Your task to perform on an android device: open chrome privacy settings Image 0: 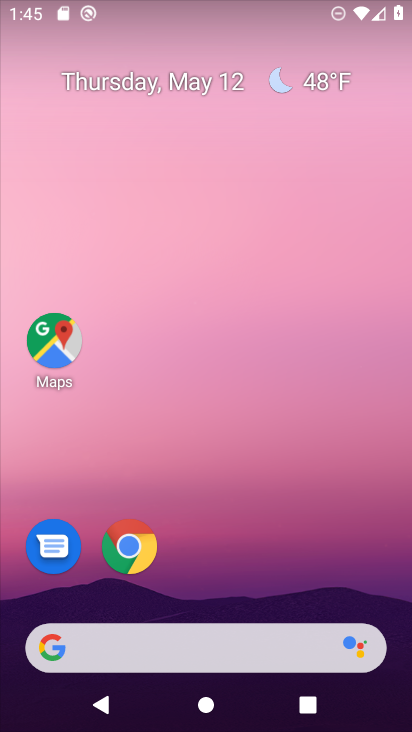
Step 0: drag from (281, 675) to (201, 213)
Your task to perform on an android device: open chrome privacy settings Image 1: 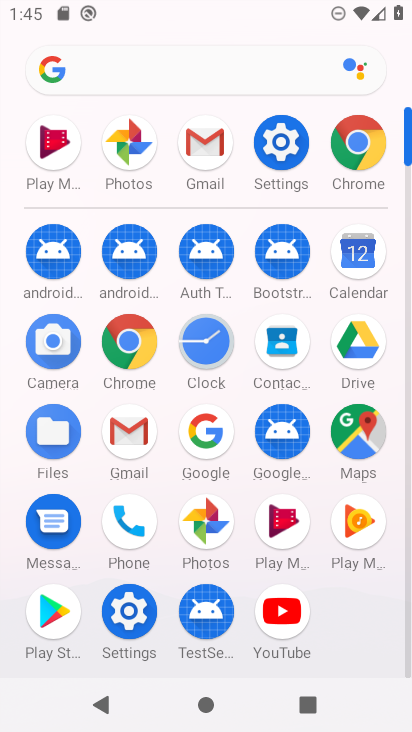
Step 1: click (348, 147)
Your task to perform on an android device: open chrome privacy settings Image 2: 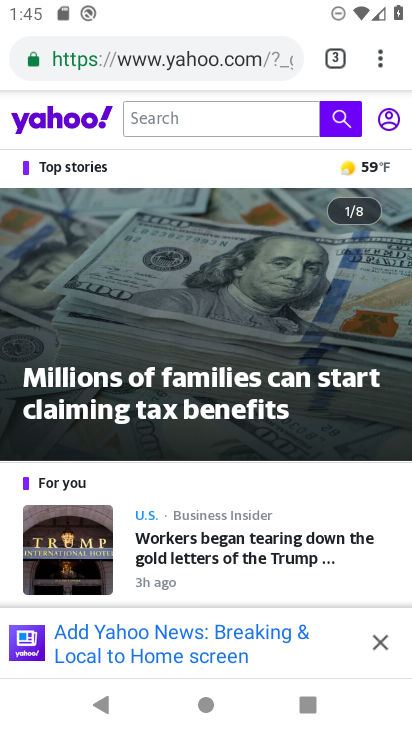
Step 2: click (384, 64)
Your task to perform on an android device: open chrome privacy settings Image 3: 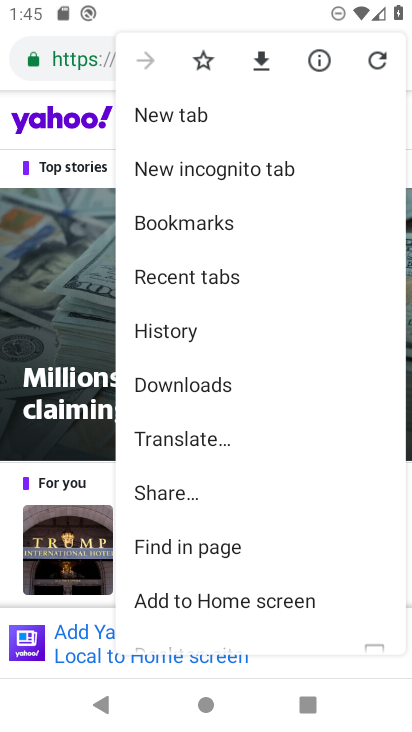
Step 3: drag from (208, 578) to (190, 478)
Your task to perform on an android device: open chrome privacy settings Image 4: 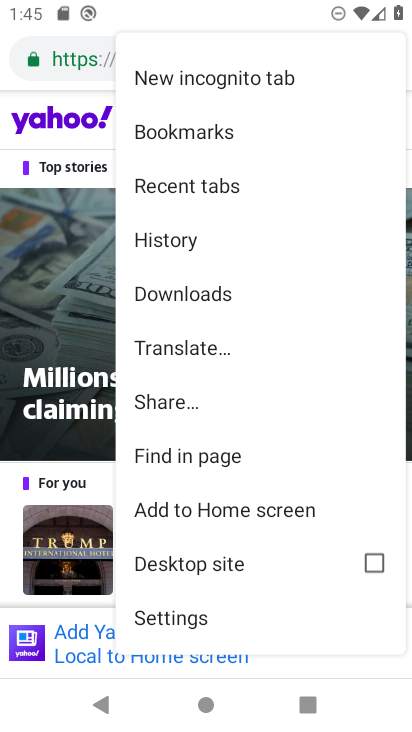
Step 4: click (178, 615)
Your task to perform on an android device: open chrome privacy settings Image 5: 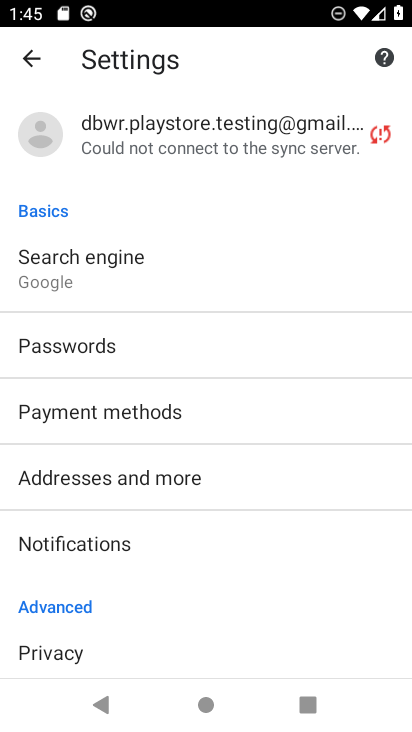
Step 5: click (87, 658)
Your task to perform on an android device: open chrome privacy settings Image 6: 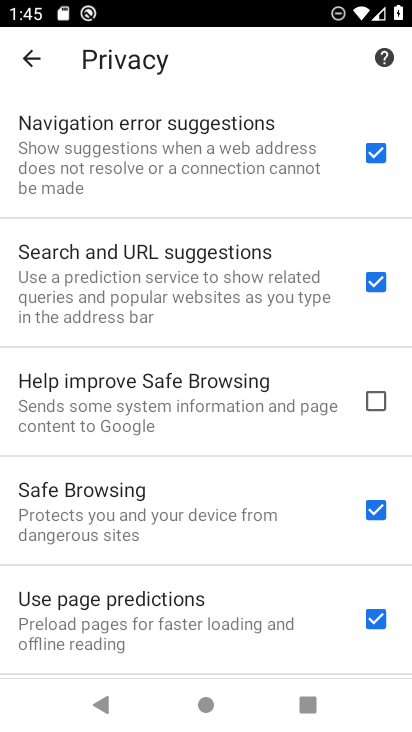
Step 6: task complete